Your task to perform on an android device: open app "Viber Messenger" (install if not already installed) Image 0: 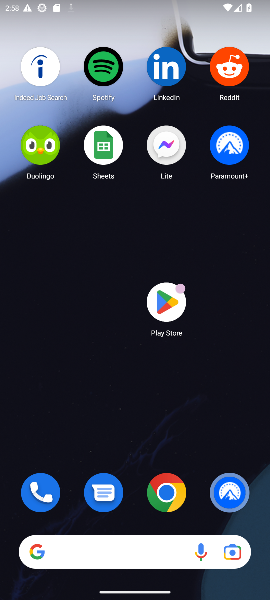
Step 0: click (164, 304)
Your task to perform on an android device: open app "Viber Messenger" (install if not already installed) Image 1: 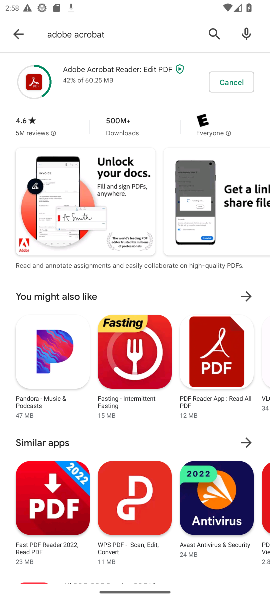
Step 1: click (209, 49)
Your task to perform on an android device: open app "Viber Messenger" (install if not already installed) Image 2: 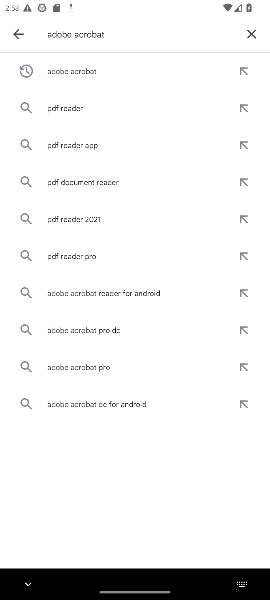
Step 2: click (249, 45)
Your task to perform on an android device: open app "Viber Messenger" (install if not already installed) Image 3: 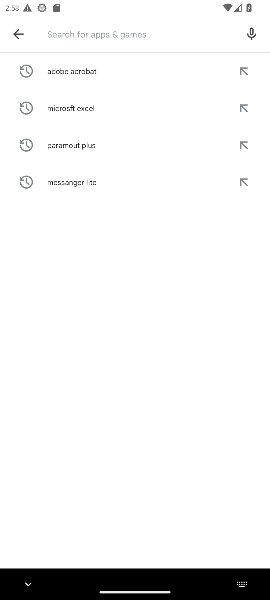
Step 3: type "viber"
Your task to perform on an android device: open app "Viber Messenger" (install if not already installed) Image 4: 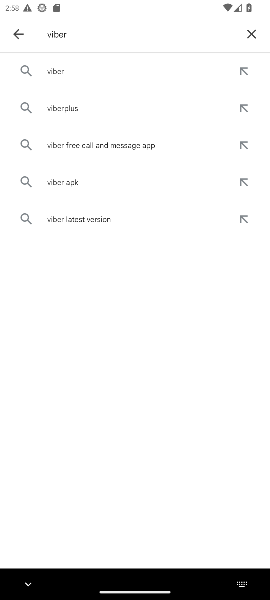
Step 4: click (125, 70)
Your task to perform on an android device: open app "Viber Messenger" (install if not already installed) Image 5: 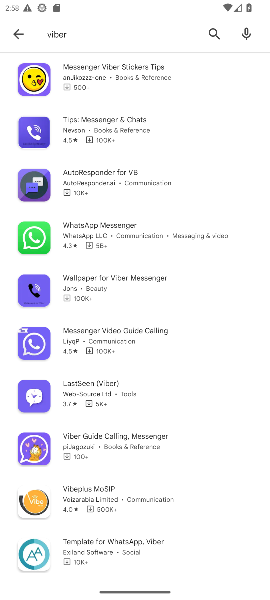
Step 5: task complete